Your task to perform on an android device: Show the shopping cart on walmart. Image 0: 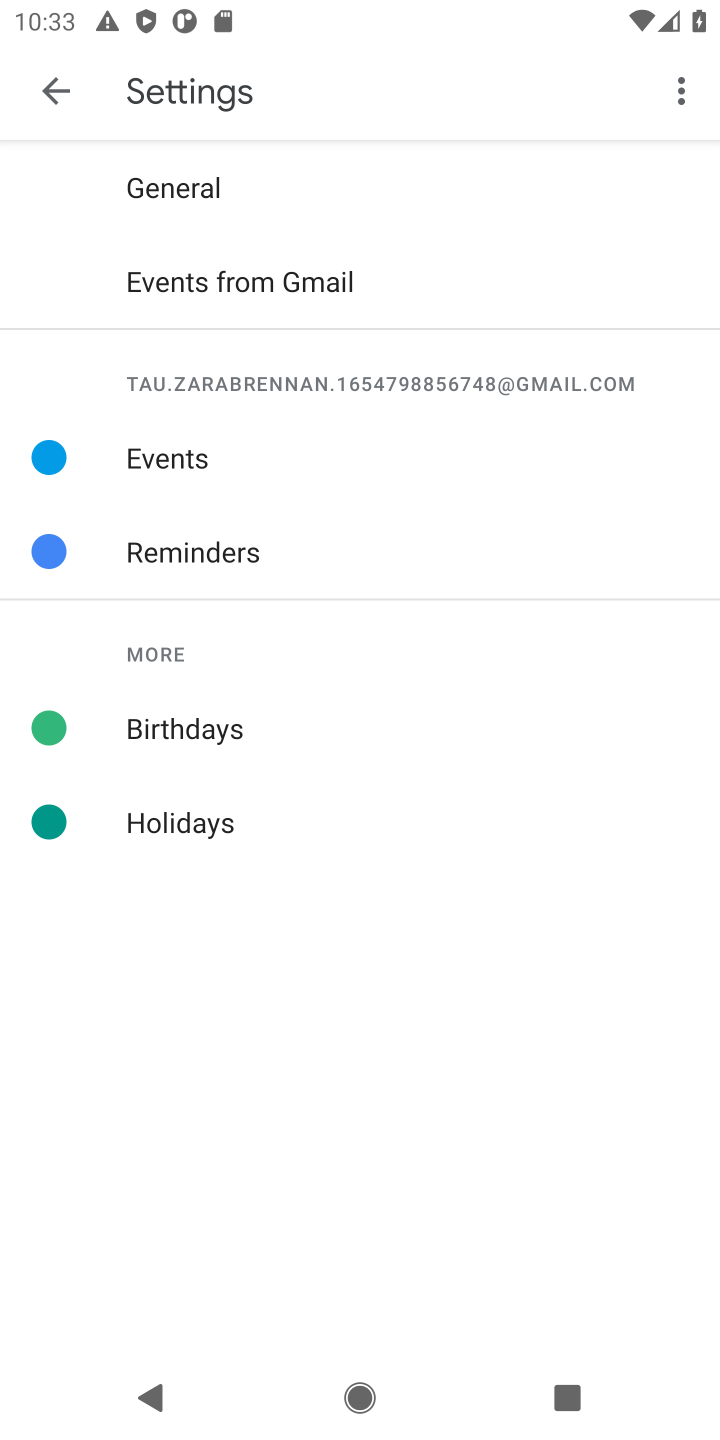
Step 0: press home button
Your task to perform on an android device: Show the shopping cart on walmart. Image 1: 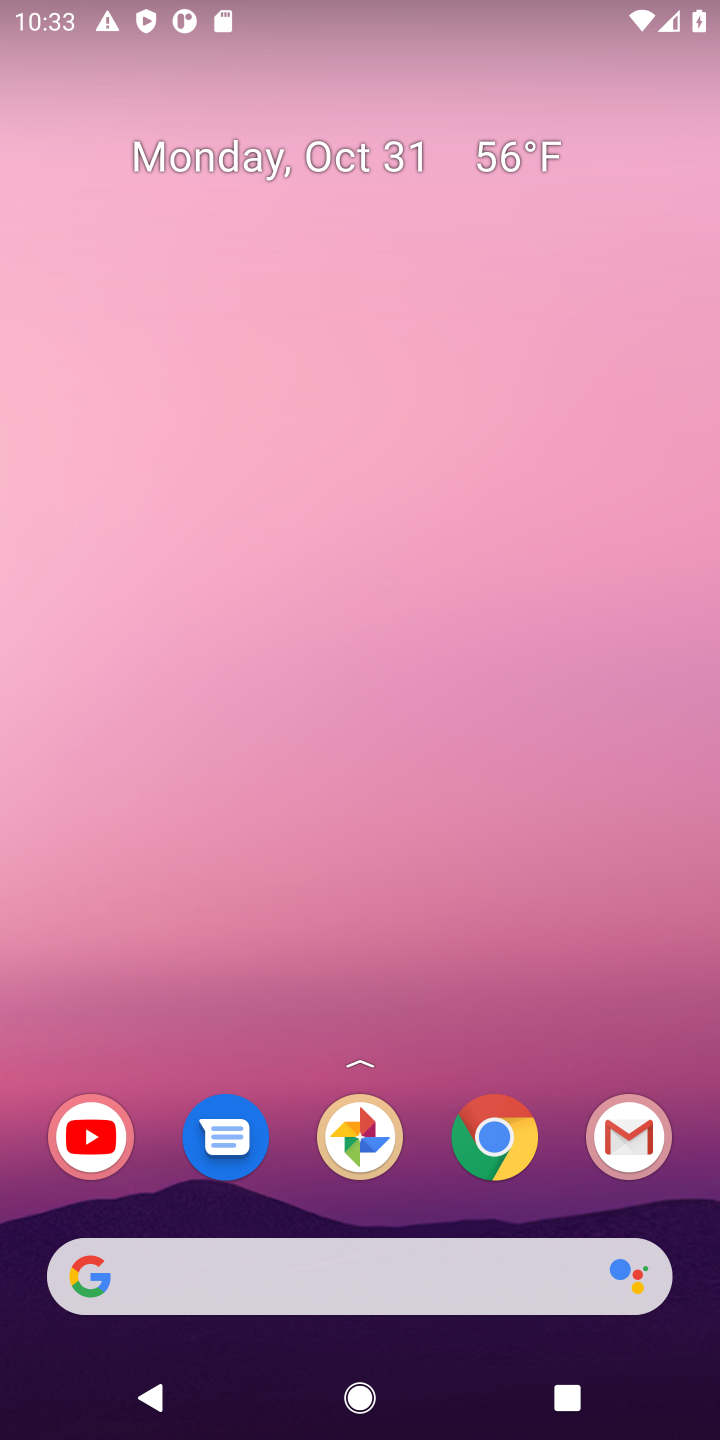
Step 1: click (495, 1138)
Your task to perform on an android device: Show the shopping cart on walmart. Image 2: 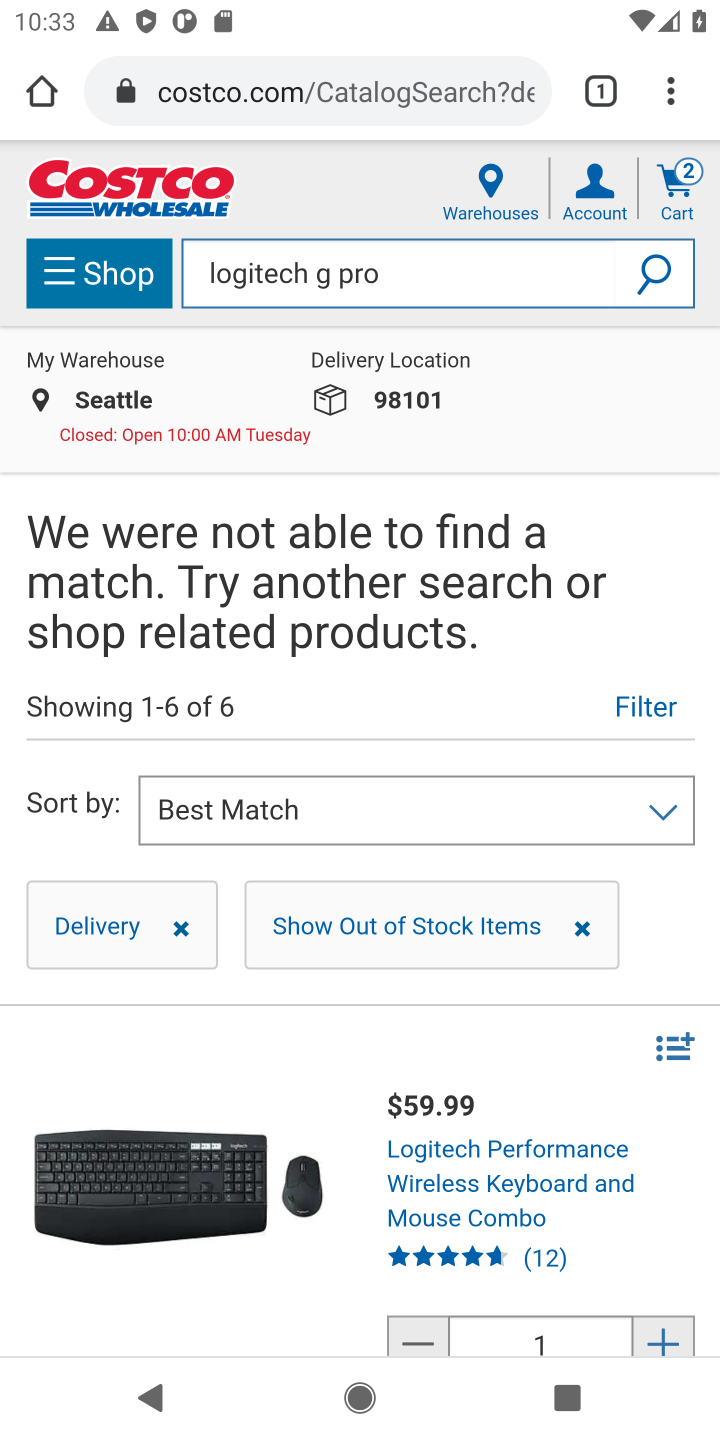
Step 2: click (340, 95)
Your task to perform on an android device: Show the shopping cart on walmart. Image 3: 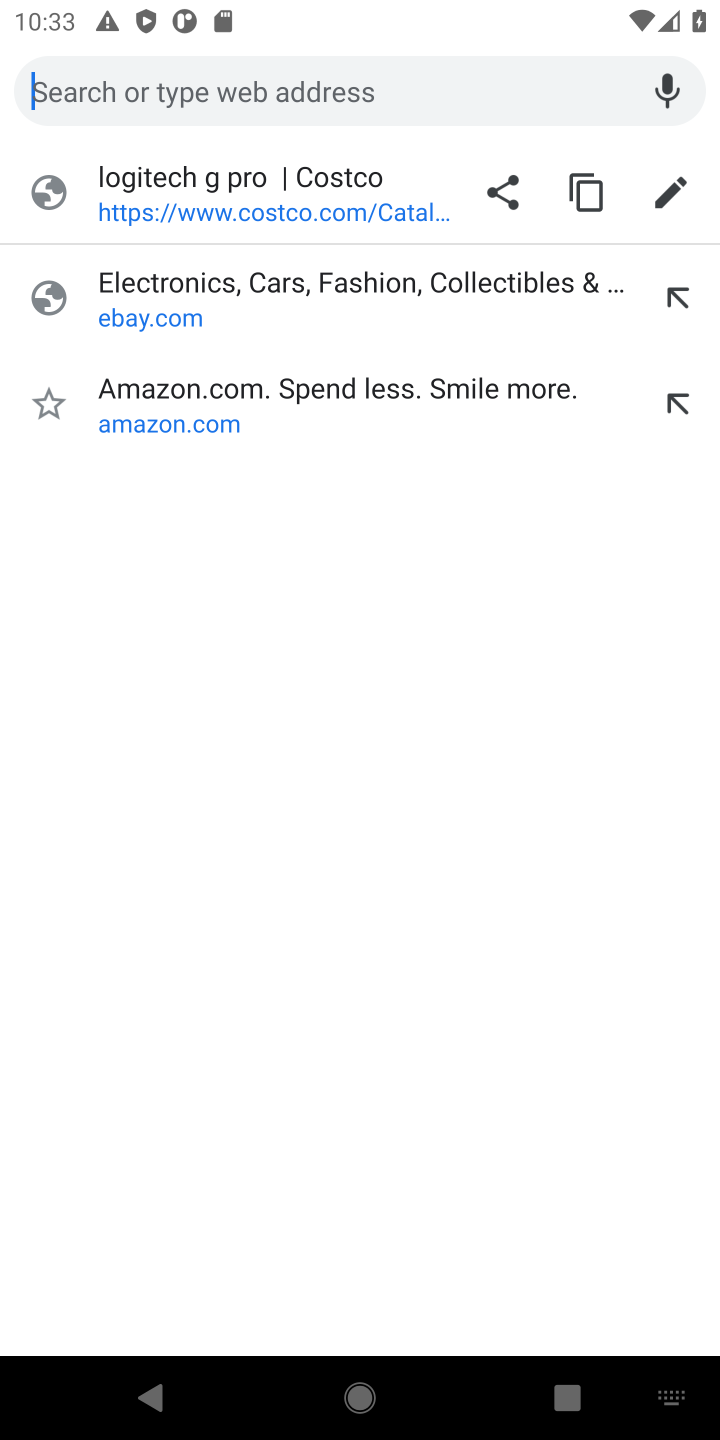
Step 3: type "walmart"
Your task to perform on an android device: Show the shopping cart on walmart. Image 4: 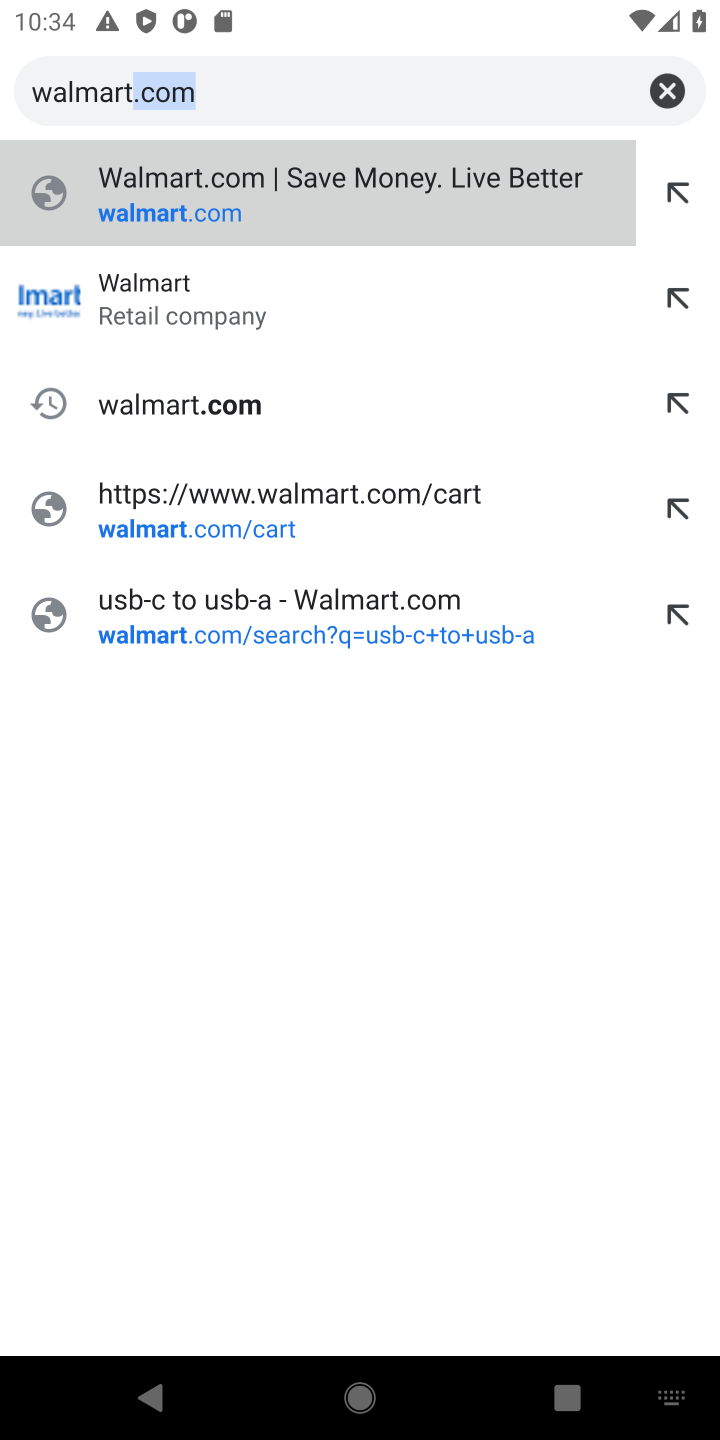
Step 4: click (208, 311)
Your task to perform on an android device: Show the shopping cart on walmart. Image 5: 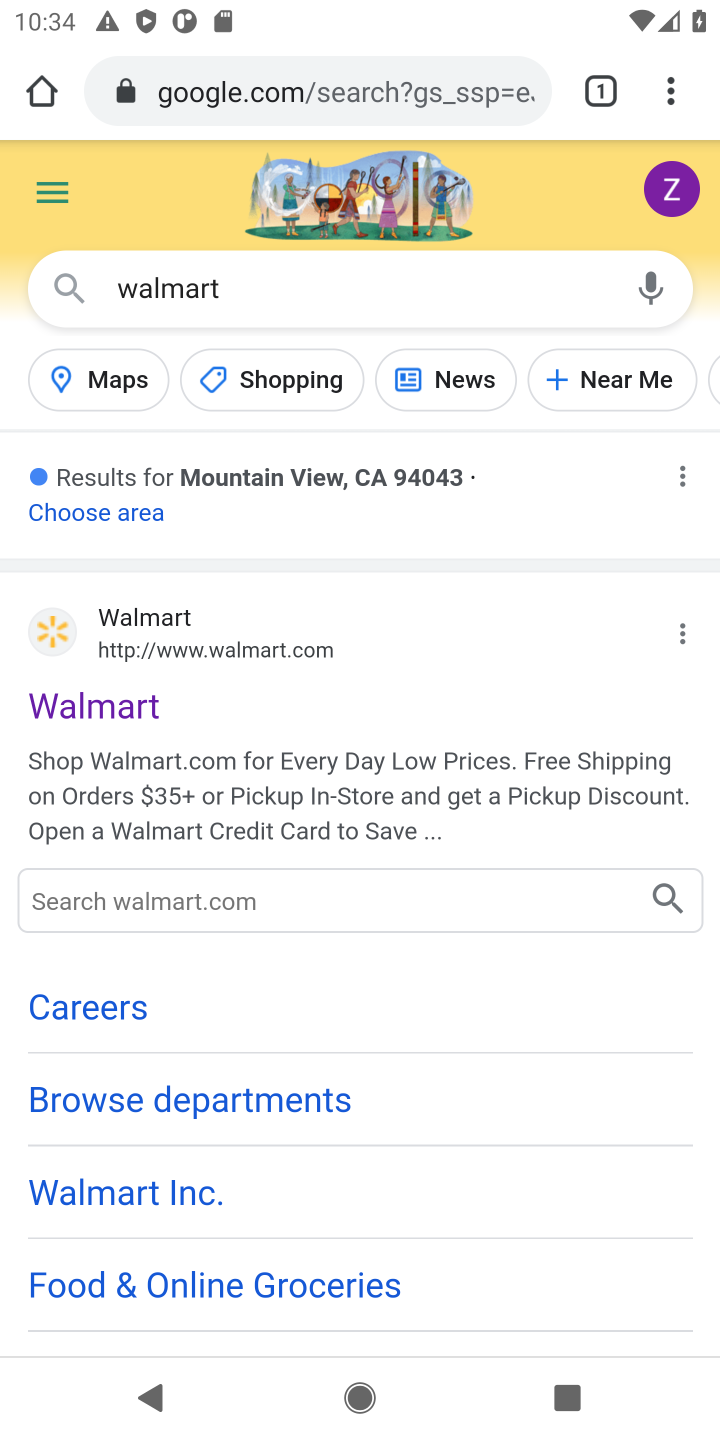
Step 5: click (123, 715)
Your task to perform on an android device: Show the shopping cart on walmart. Image 6: 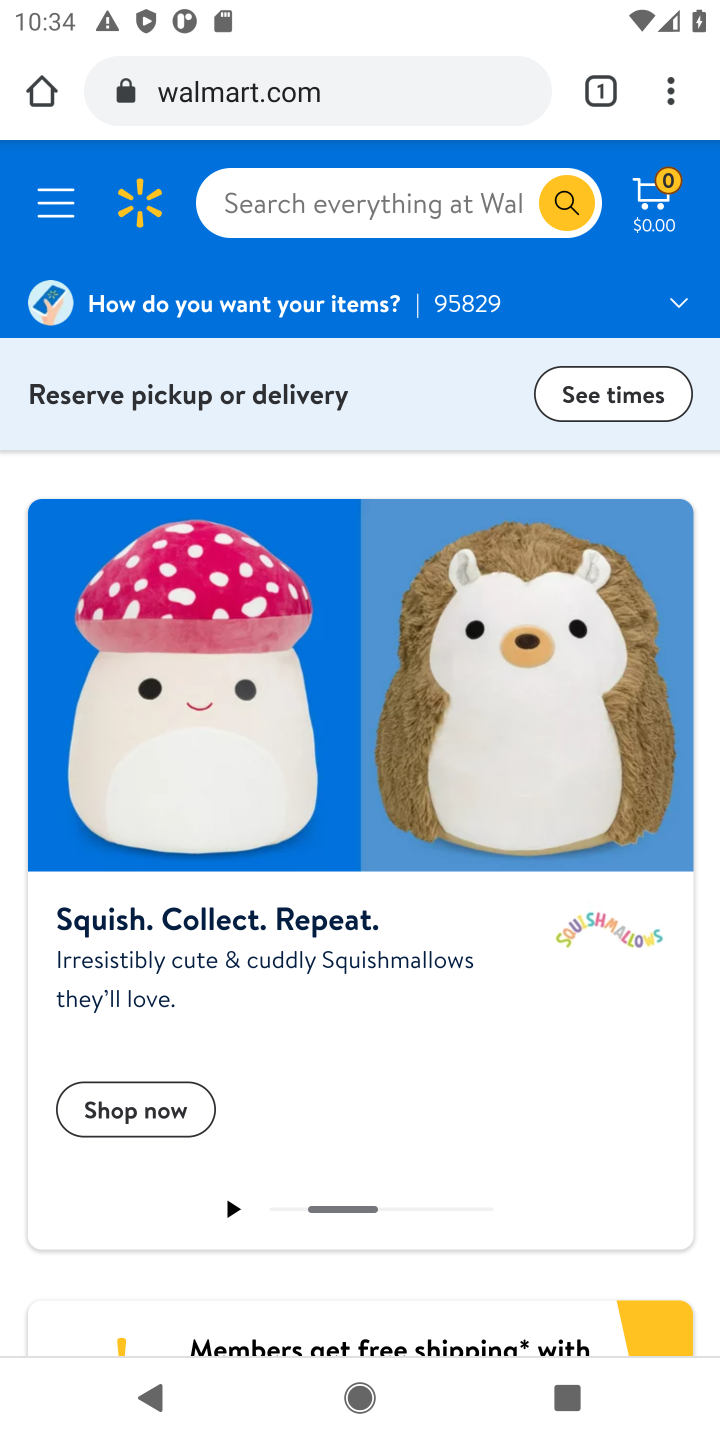
Step 6: click (653, 197)
Your task to perform on an android device: Show the shopping cart on walmart. Image 7: 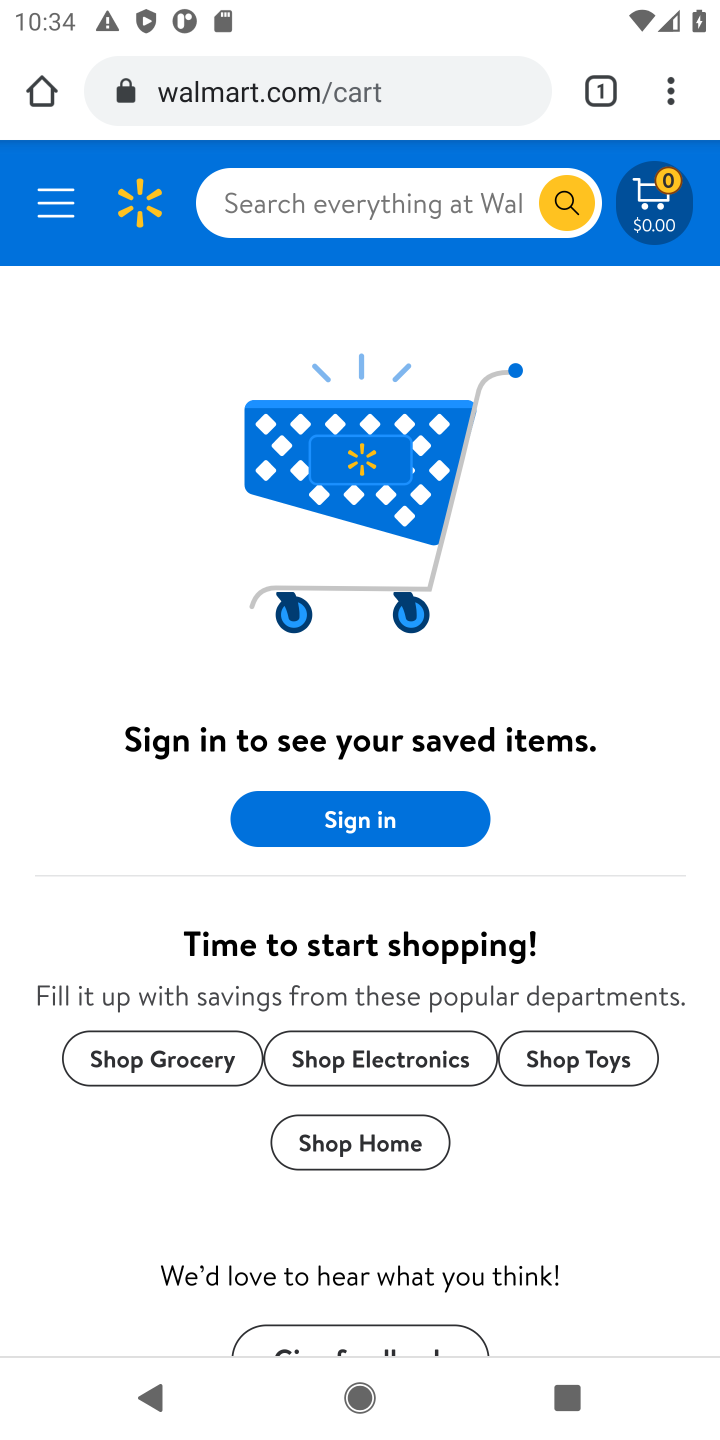
Step 7: task complete